Your task to perform on an android device: clear all cookies in the chrome app Image 0: 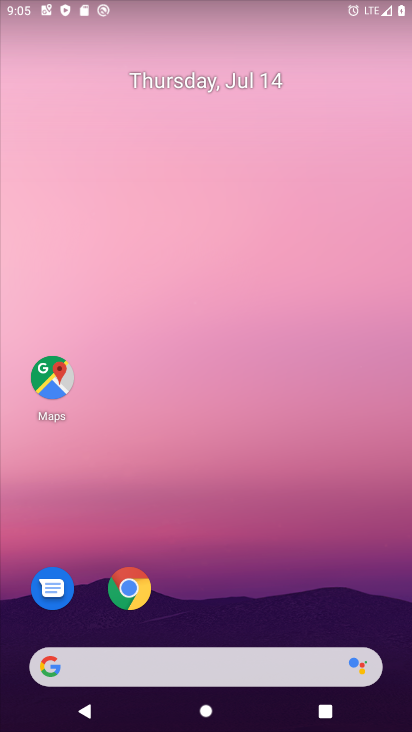
Step 0: drag from (183, 558) to (202, 4)
Your task to perform on an android device: clear all cookies in the chrome app Image 1: 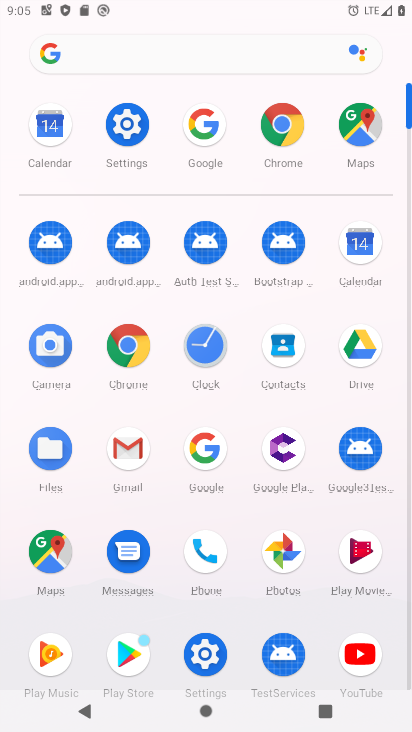
Step 1: click (289, 125)
Your task to perform on an android device: clear all cookies in the chrome app Image 2: 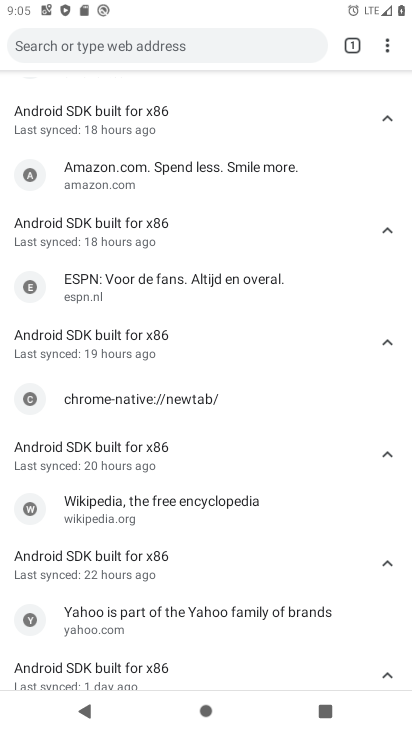
Step 2: drag from (384, 50) to (230, 273)
Your task to perform on an android device: clear all cookies in the chrome app Image 3: 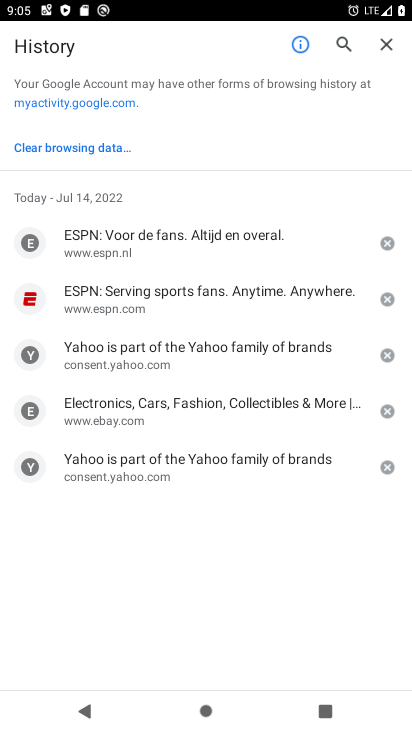
Step 3: click (91, 149)
Your task to perform on an android device: clear all cookies in the chrome app Image 4: 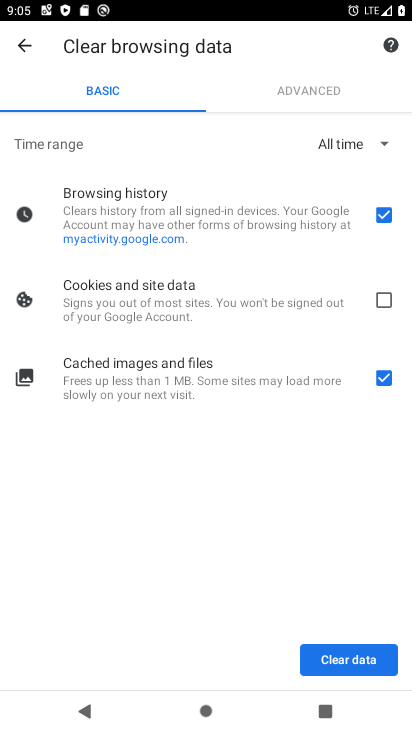
Step 4: click (383, 290)
Your task to perform on an android device: clear all cookies in the chrome app Image 5: 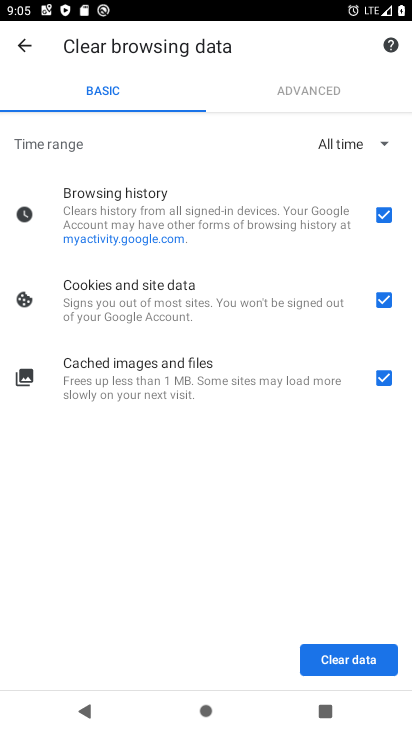
Step 5: click (387, 373)
Your task to perform on an android device: clear all cookies in the chrome app Image 6: 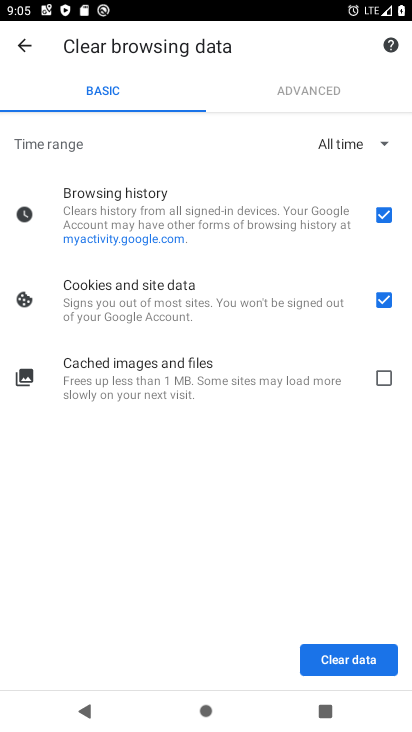
Step 6: click (386, 210)
Your task to perform on an android device: clear all cookies in the chrome app Image 7: 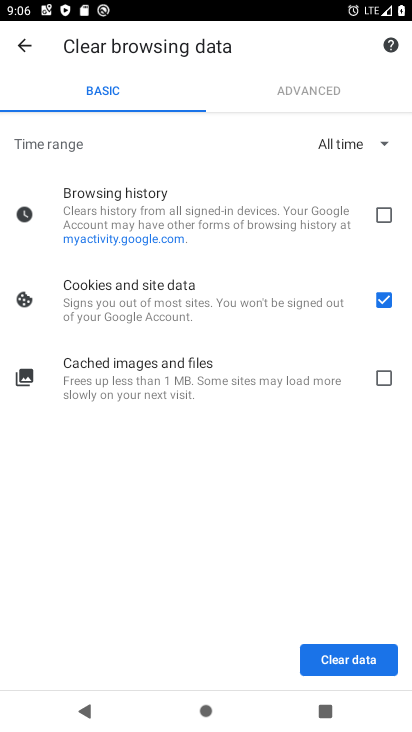
Step 7: click (356, 661)
Your task to perform on an android device: clear all cookies in the chrome app Image 8: 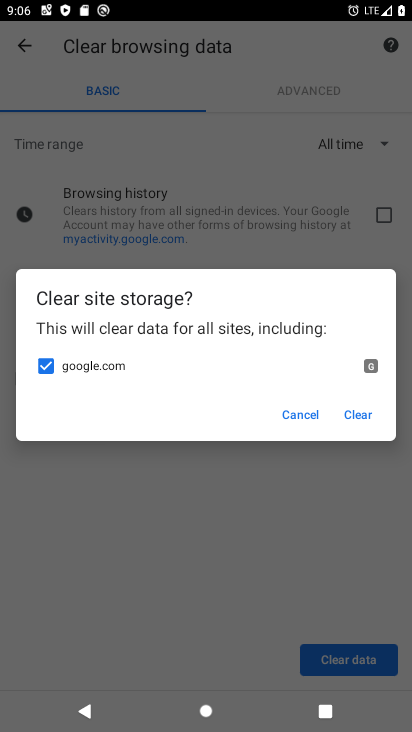
Step 8: click (355, 410)
Your task to perform on an android device: clear all cookies in the chrome app Image 9: 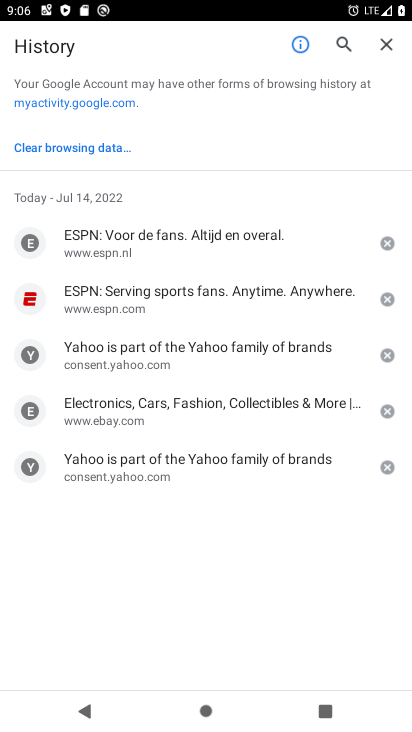
Step 9: task complete